Your task to perform on an android device: Open Amazon Image 0: 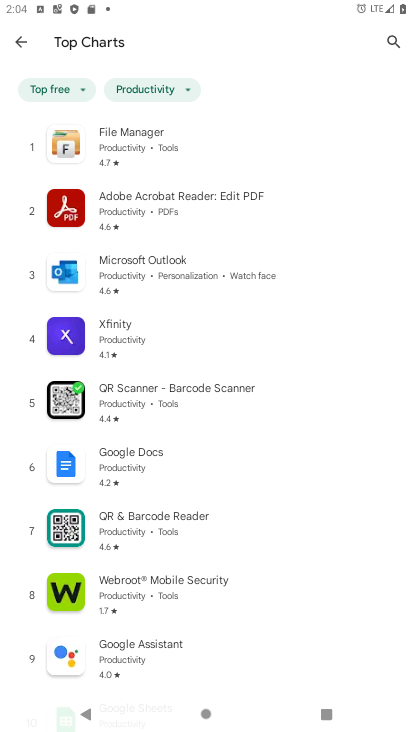
Step 0: press home button
Your task to perform on an android device: Open Amazon Image 1: 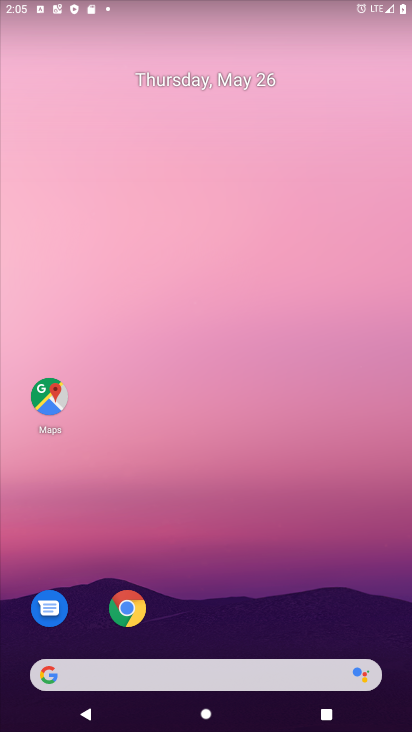
Step 1: click (130, 610)
Your task to perform on an android device: Open Amazon Image 2: 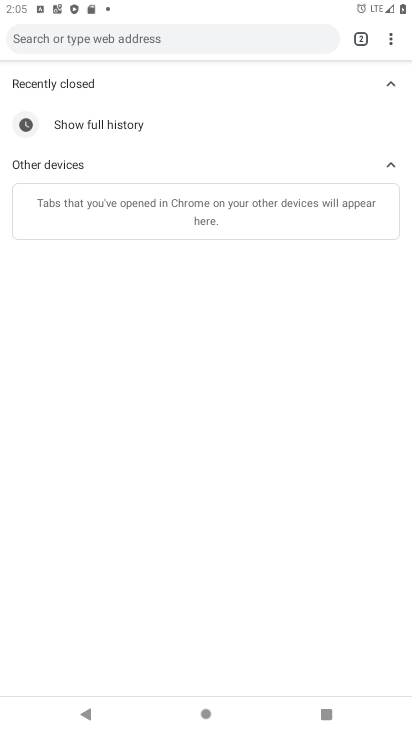
Step 2: click (82, 30)
Your task to perform on an android device: Open Amazon Image 3: 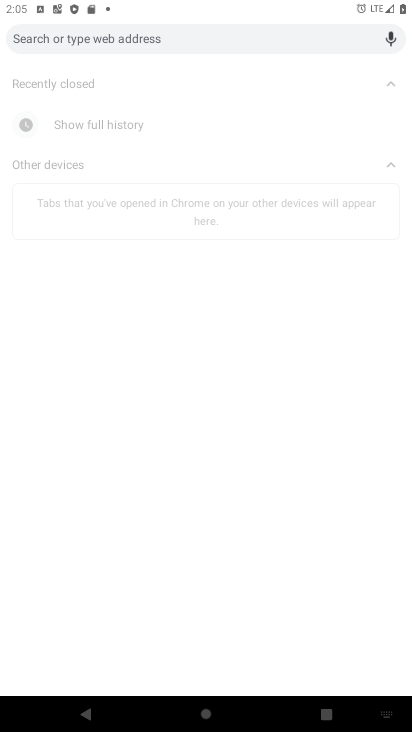
Step 3: type "amazon"
Your task to perform on an android device: Open Amazon Image 4: 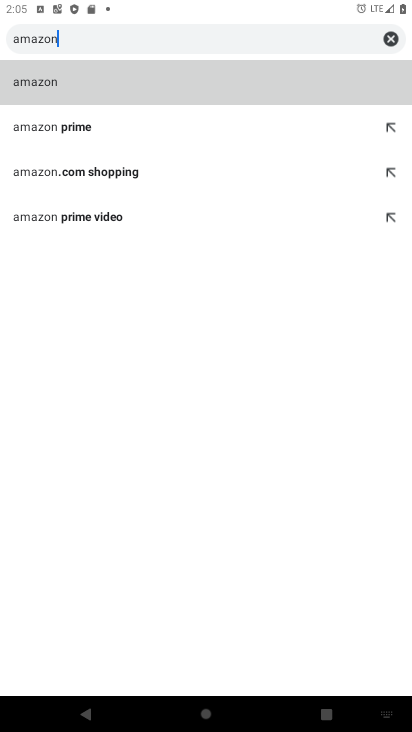
Step 4: click (41, 89)
Your task to perform on an android device: Open Amazon Image 5: 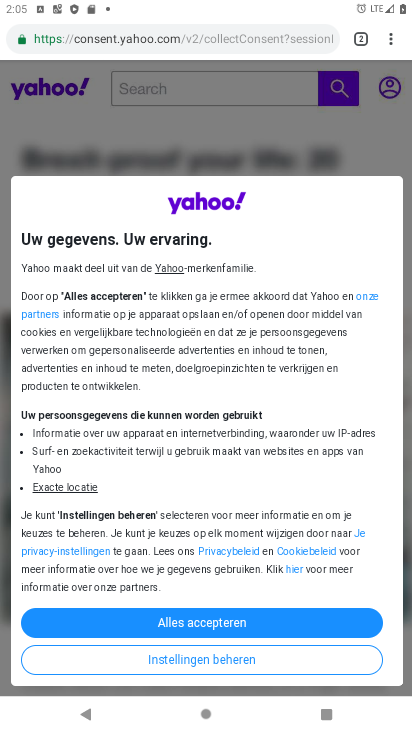
Step 5: click (183, 618)
Your task to perform on an android device: Open Amazon Image 6: 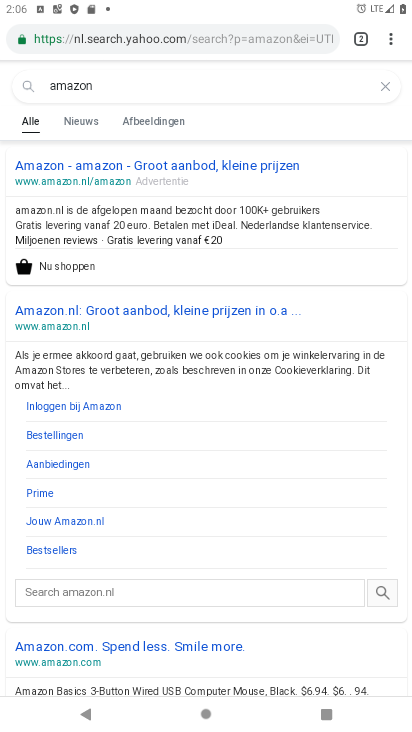
Step 6: click (66, 185)
Your task to perform on an android device: Open Amazon Image 7: 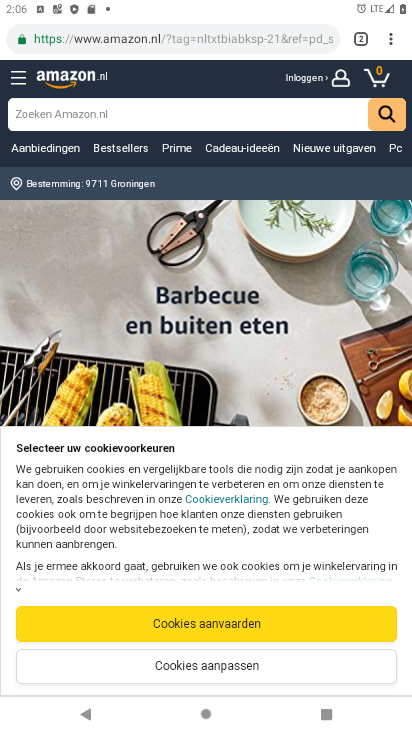
Step 7: task complete